Your task to perform on an android device: Search for "bose quietcomfort 35" on walmart, select the first entry, add it to the cart, then select checkout. Image 0: 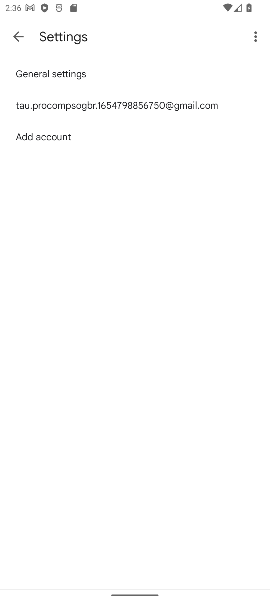
Step 0: press home button
Your task to perform on an android device: Search for "bose quietcomfort 35" on walmart, select the first entry, add it to the cart, then select checkout. Image 1: 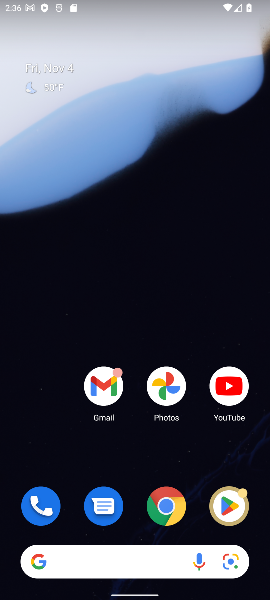
Step 1: drag from (147, 454) to (200, 85)
Your task to perform on an android device: Search for "bose quietcomfort 35" on walmart, select the first entry, add it to the cart, then select checkout. Image 2: 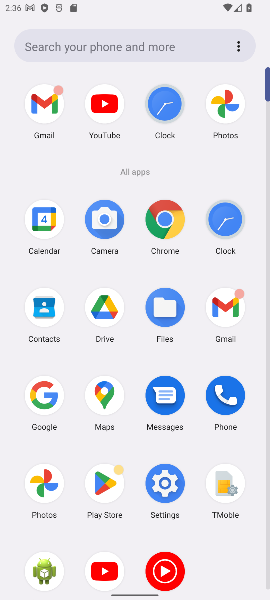
Step 2: click (166, 222)
Your task to perform on an android device: Search for "bose quietcomfort 35" on walmart, select the first entry, add it to the cart, then select checkout. Image 3: 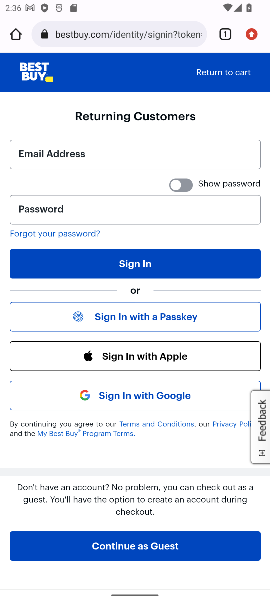
Step 3: click (192, 38)
Your task to perform on an android device: Search for "bose quietcomfort 35" on walmart, select the first entry, add it to the cart, then select checkout. Image 4: 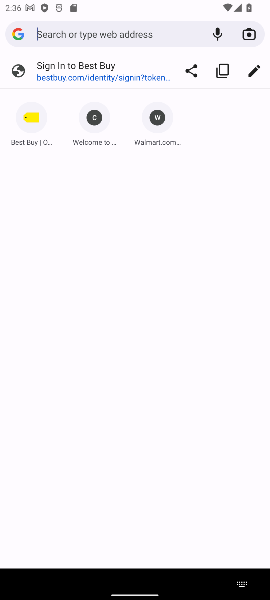
Step 4: type "walmart.com"
Your task to perform on an android device: Search for "bose quietcomfort 35" on walmart, select the first entry, add it to the cart, then select checkout. Image 5: 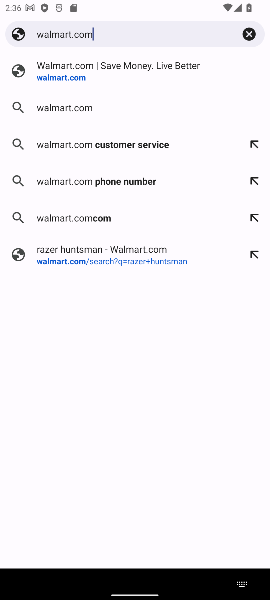
Step 5: press enter
Your task to perform on an android device: Search for "bose quietcomfort 35" on walmart, select the first entry, add it to the cart, then select checkout. Image 6: 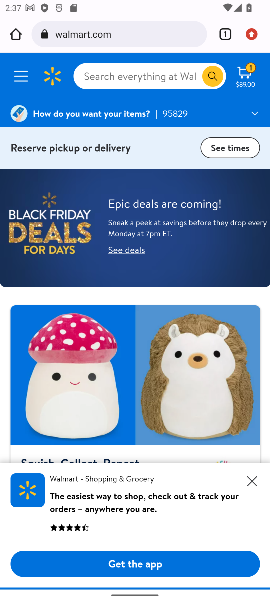
Step 6: click (175, 79)
Your task to perform on an android device: Search for "bose quietcomfort 35" on walmart, select the first entry, add it to the cart, then select checkout. Image 7: 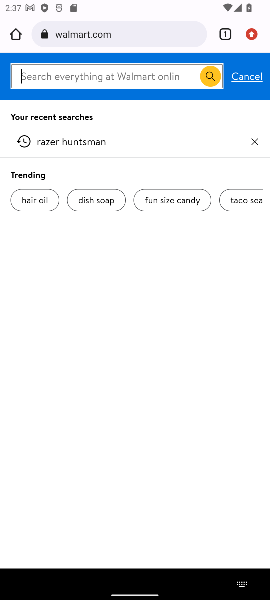
Step 7: type "bose quietcomfort 35"
Your task to perform on an android device: Search for "bose quietcomfort 35" on walmart, select the first entry, add it to the cart, then select checkout. Image 8: 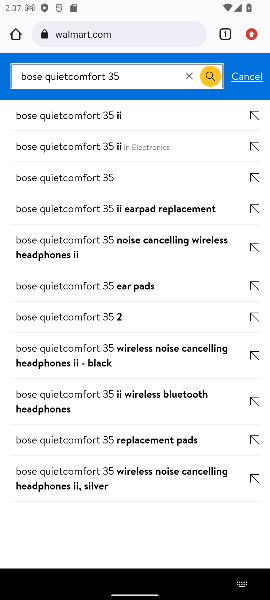
Step 8: press enter
Your task to perform on an android device: Search for "bose quietcomfort 35" on walmart, select the first entry, add it to the cart, then select checkout. Image 9: 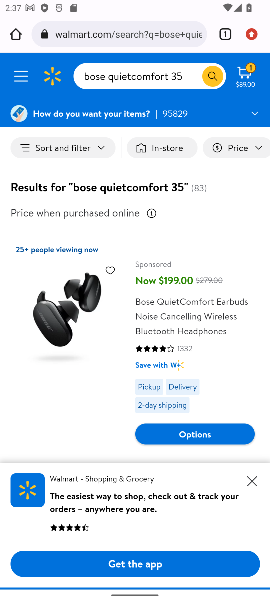
Step 9: drag from (169, 382) to (147, 101)
Your task to perform on an android device: Search for "bose quietcomfort 35" on walmart, select the first entry, add it to the cart, then select checkout. Image 10: 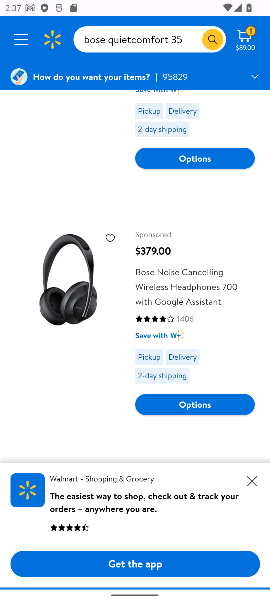
Step 10: drag from (125, 393) to (126, 107)
Your task to perform on an android device: Search for "bose quietcomfort 35" on walmart, select the first entry, add it to the cart, then select checkout. Image 11: 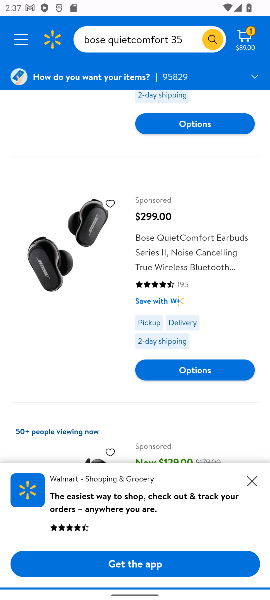
Step 11: drag from (165, 349) to (101, 82)
Your task to perform on an android device: Search for "bose quietcomfort 35" on walmart, select the first entry, add it to the cart, then select checkout. Image 12: 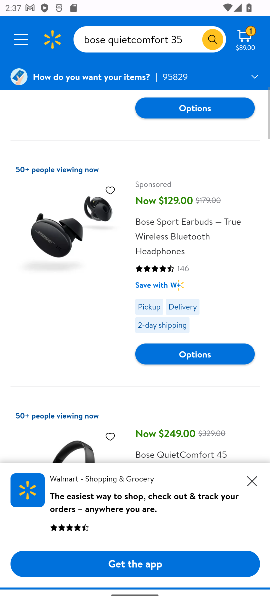
Step 12: drag from (105, 366) to (129, 142)
Your task to perform on an android device: Search for "bose quietcomfort 35" on walmart, select the first entry, add it to the cart, then select checkout. Image 13: 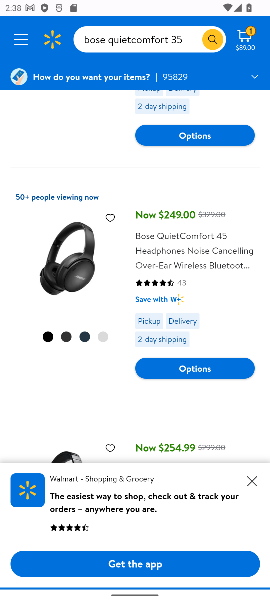
Step 13: drag from (206, 360) to (185, 96)
Your task to perform on an android device: Search for "bose quietcomfort 35" on walmart, select the first entry, add it to the cart, then select checkout. Image 14: 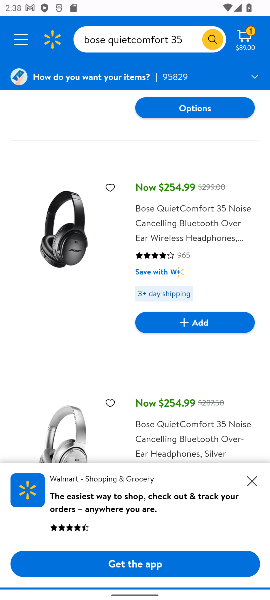
Step 14: drag from (178, 172) to (179, 213)
Your task to perform on an android device: Search for "bose quietcomfort 35" on walmart, select the first entry, add it to the cart, then select checkout. Image 15: 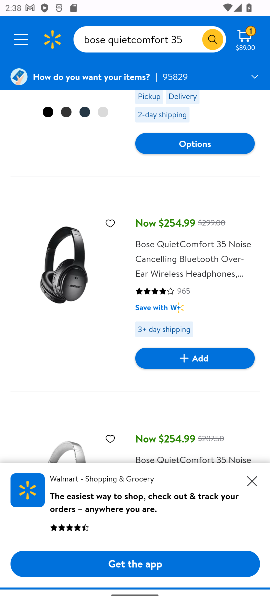
Step 15: click (230, 349)
Your task to perform on an android device: Search for "bose quietcomfort 35" on walmart, select the first entry, add it to the cart, then select checkout. Image 16: 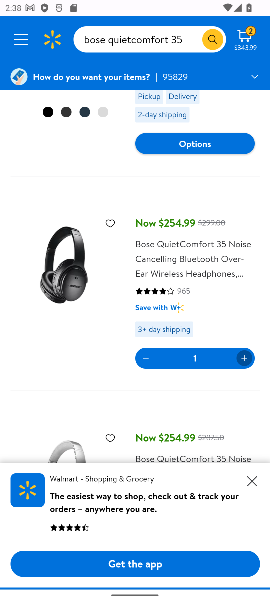
Step 16: click (190, 257)
Your task to perform on an android device: Search for "bose quietcomfort 35" on walmart, select the first entry, add it to the cart, then select checkout. Image 17: 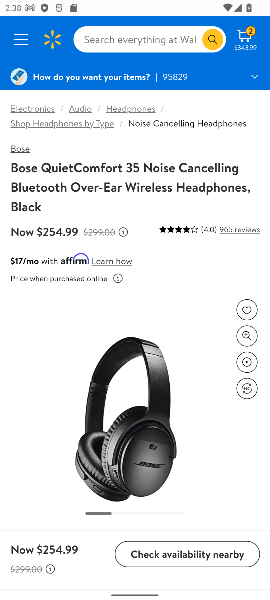
Step 17: drag from (201, 424) to (199, 265)
Your task to perform on an android device: Search for "bose quietcomfort 35" on walmart, select the first entry, add it to the cart, then select checkout. Image 18: 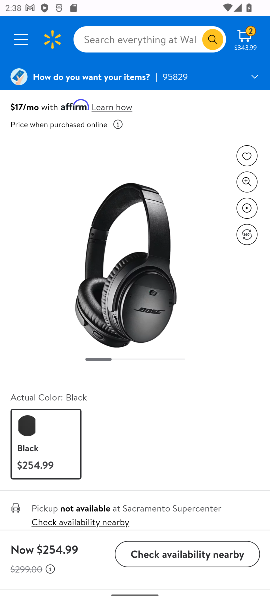
Step 18: click (244, 38)
Your task to perform on an android device: Search for "bose quietcomfort 35" on walmart, select the first entry, add it to the cart, then select checkout. Image 19: 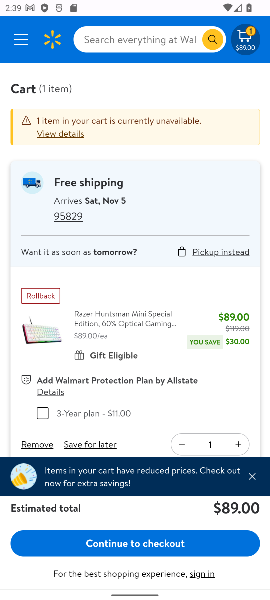
Step 19: click (225, 543)
Your task to perform on an android device: Search for "bose quietcomfort 35" on walmart, select the first entry, add it to the cart, then select checkout. Image 20: 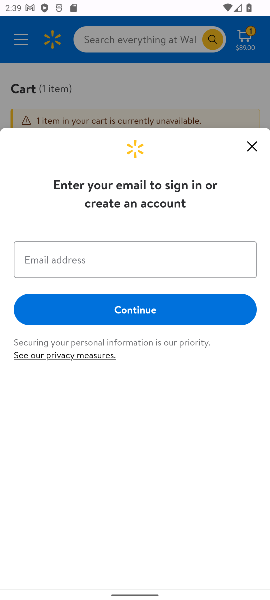
Step 20: task complete